Your task to perform on an android device: Open privacy settings Image 0: 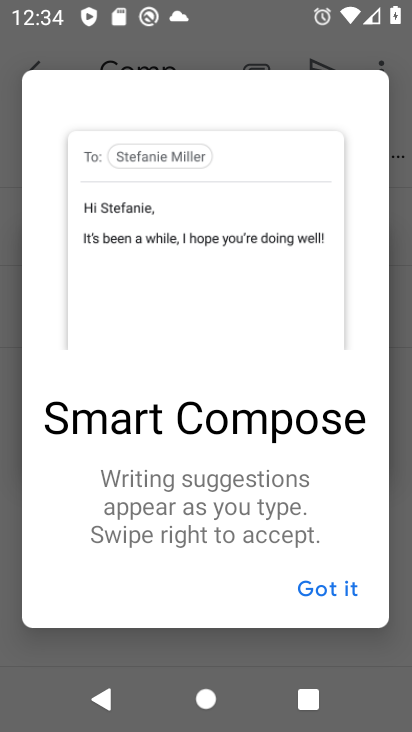
Step 0: press home button
Your task to perform on an android device: Open privacy settings Image 1: 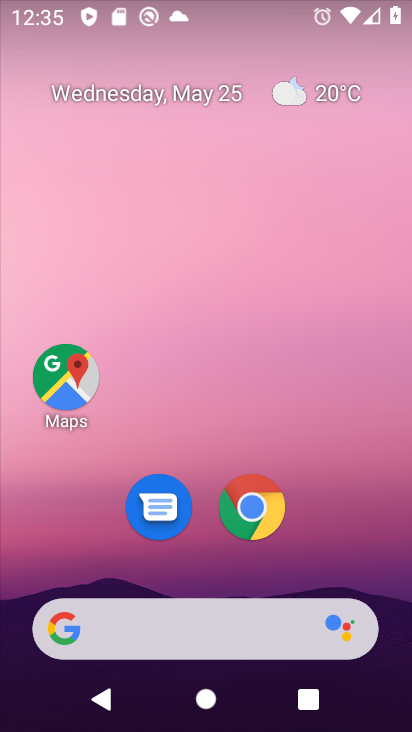
Step 1: drag from (376, 548) to (405, 150)
Your task to perform on an android device: Open privacy settings Image 2: 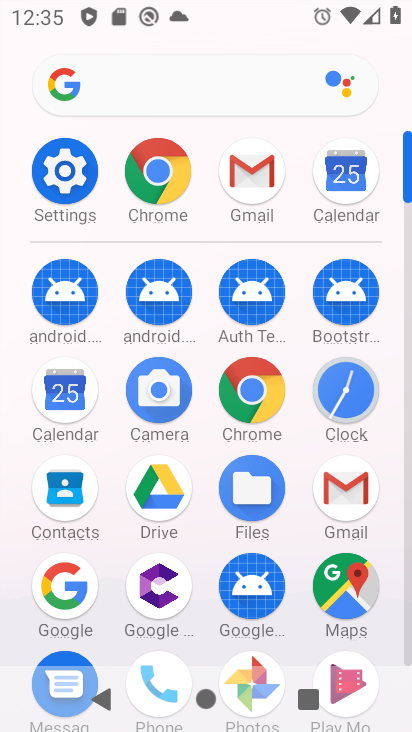
Step 2: click (69, 188)
Your task to perform on an android device: Open privacy settings Image 3: 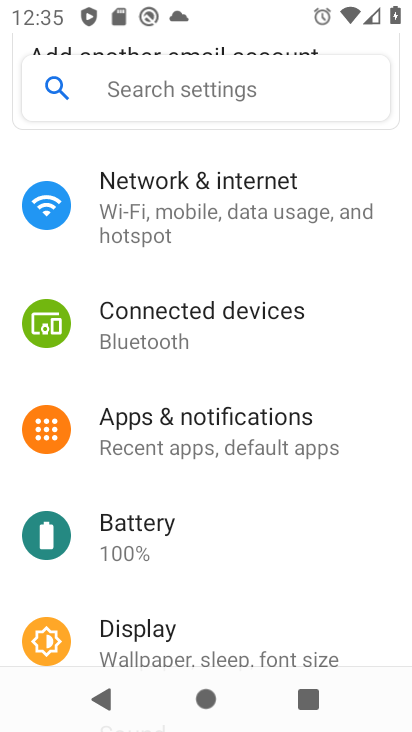
Step 3: drag from (162, 554) to (165, 318)
Your task to perform on an android device: Open privacy settings Image 4: 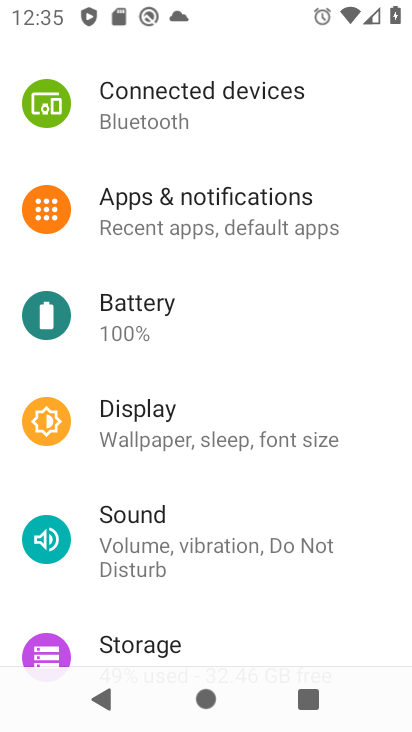
Step 4: drag from (215, 532) to (230, 263)
Your task to perform on an android device: Open privacy settings Image 5: 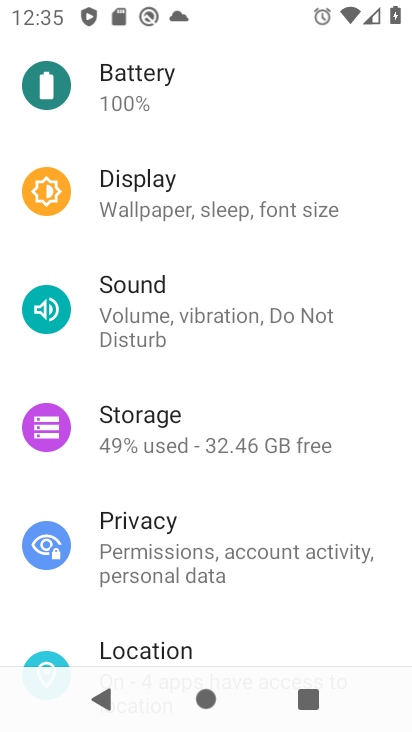
Step 5: drag from (190, 600) to (195, 324)
Your task to perform on an android device: Open privacy settings Image 6: 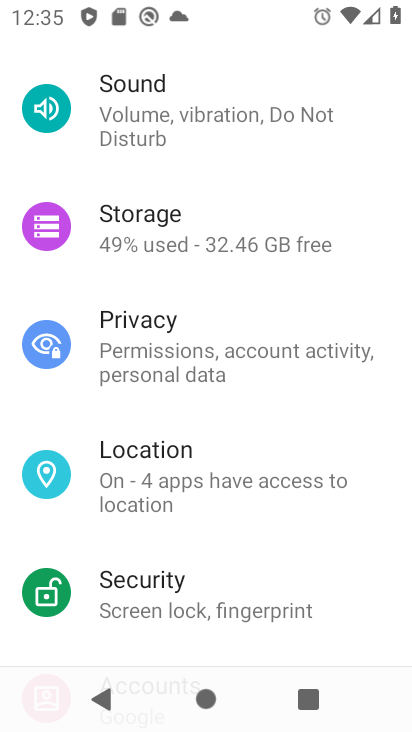
Step 6: click (167, 326)
Your task to perform on an android device: Open privacy settings Image 7: 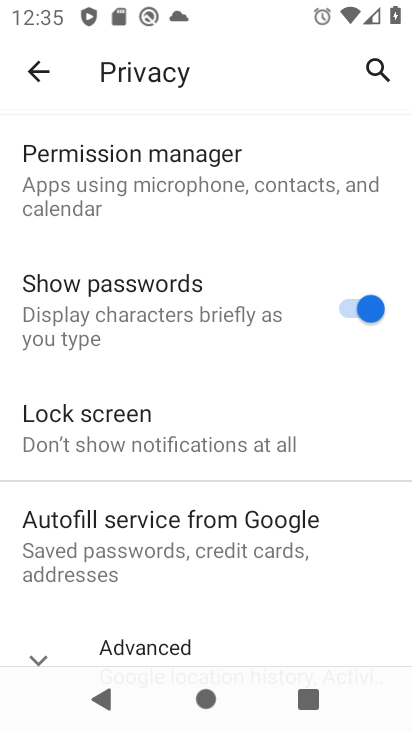
Step 7: task complete